Your task to perform on an android device: Open Google Maps and go to "Timeline" Image 0: 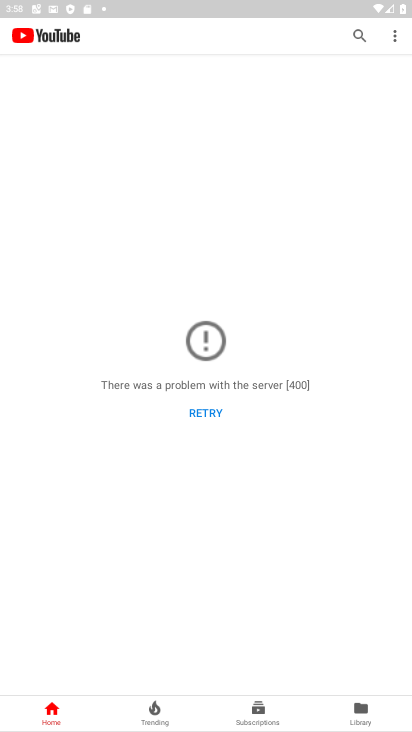
Step 0: press home button
Your task to perform on an android device: Open Google Maps and go to "Timeline" Image 1: 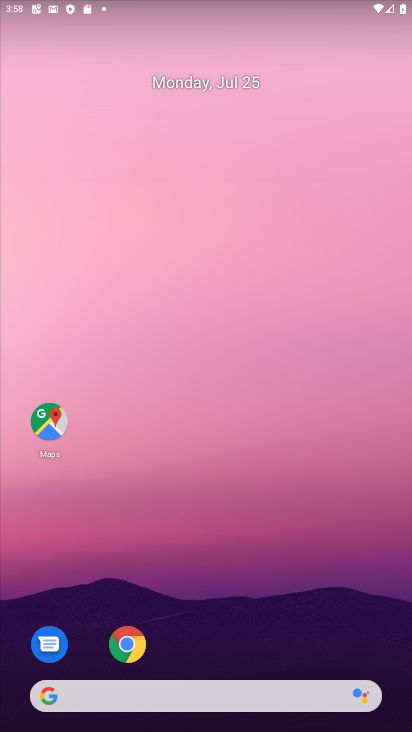
Step 1: click (53, 415)
Your task to perform on an android device: Open Google Maps and go to "Timeline" Image 2: 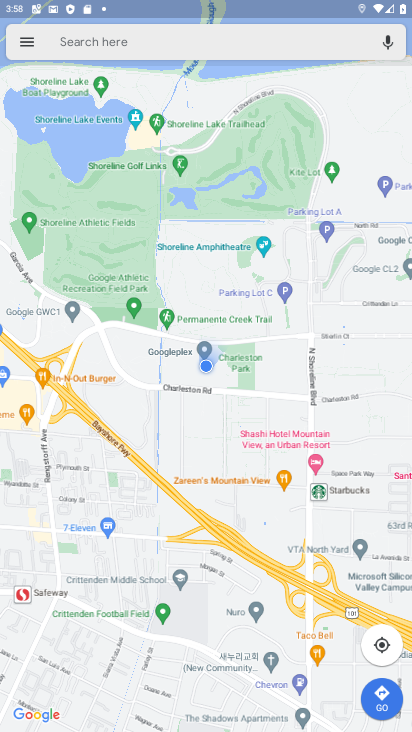
Step 2: click (25, 46)
Your task to perform on an android device: Open Google Maps and go to "Timeline" Image 3: 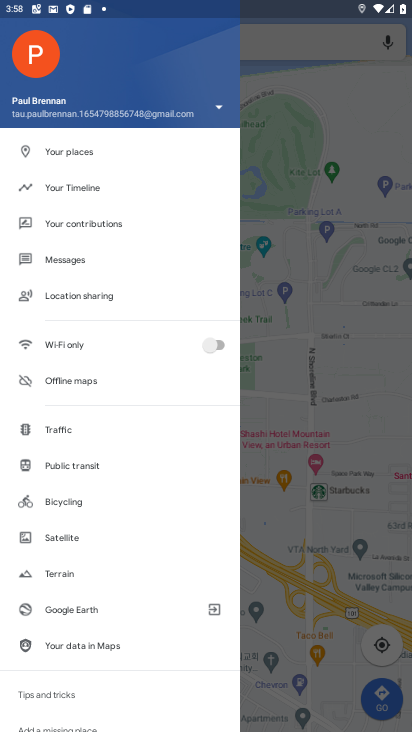
Step 3: click (72, 183)
Your task to perform on an android device: Open Google Maps and go to "Timeline" Image 4: 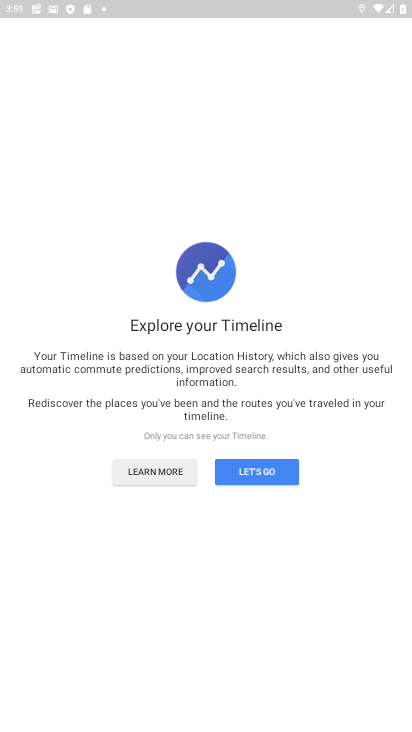
Step 4: click (262, 472)
Your task to perform on an android device: Open Google Maps and go to "Timeline" Image 5: 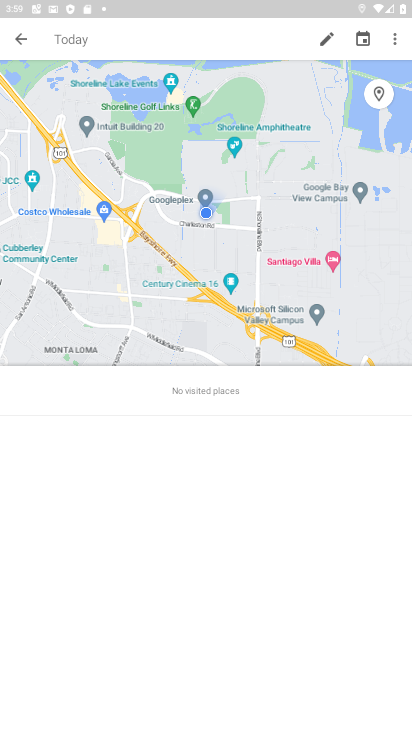
Step 5: task complete